Your task to perform on an android device: make emails show in primary in the gmail app Image 0: 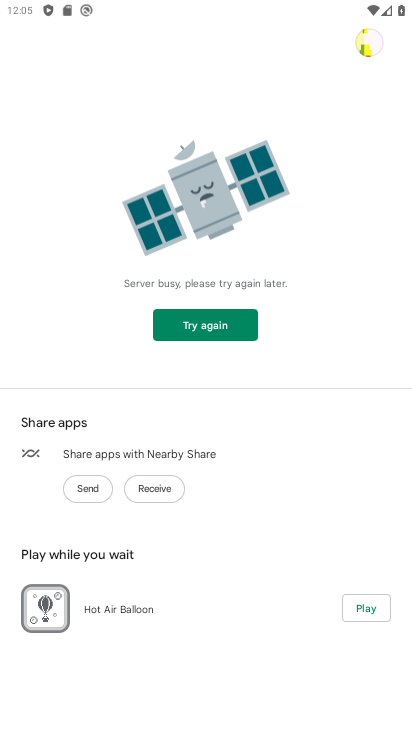
Step 0: press home button
Your task to perform on an android device: make emails show in primary in the gmail app Image 1: 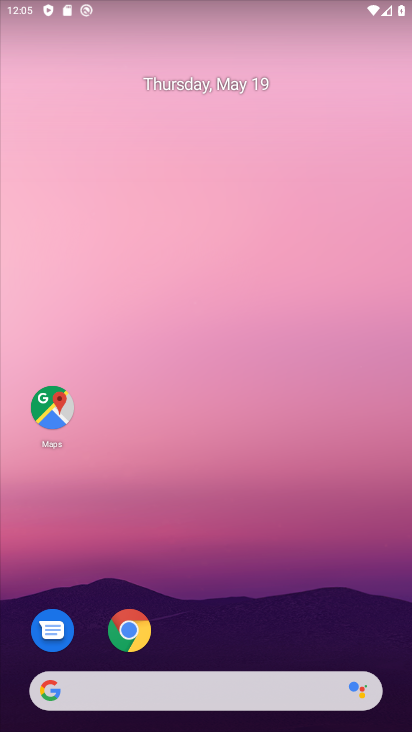
Step 1: drag from (175, 555) to (241, 211)
Your task to perform on an android device: make emails show in primary in the gmail app Image 2: 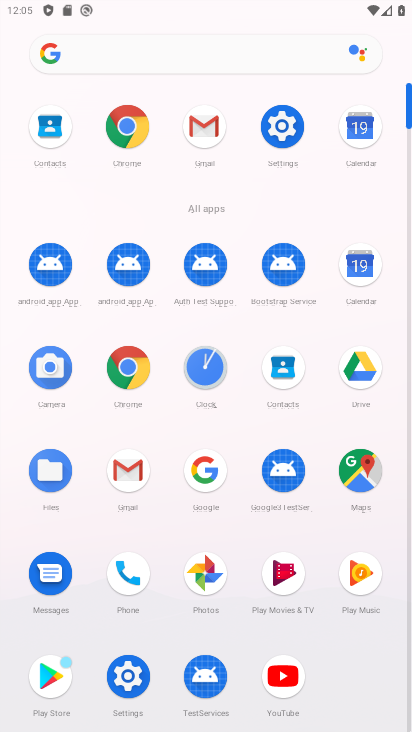
Step 2: click (195, 140)
Your task to perform on an android device: make emails show in primary in the gmail app Image 3: 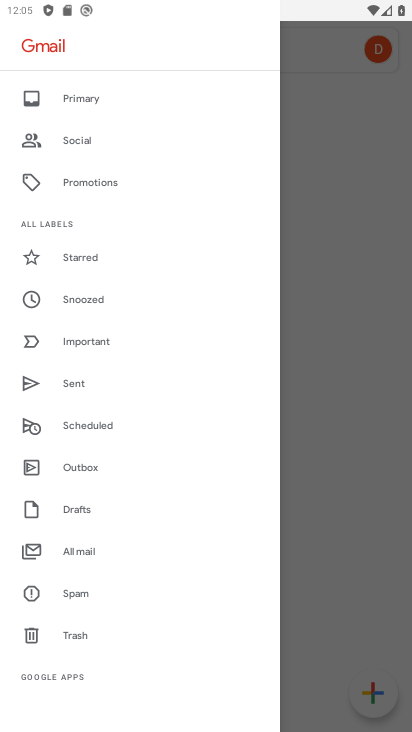
Step 3: drag from (96, 553) to (169, 312)
Your task to perform on an android device: make emails show in primary in the gmail app Image 4: 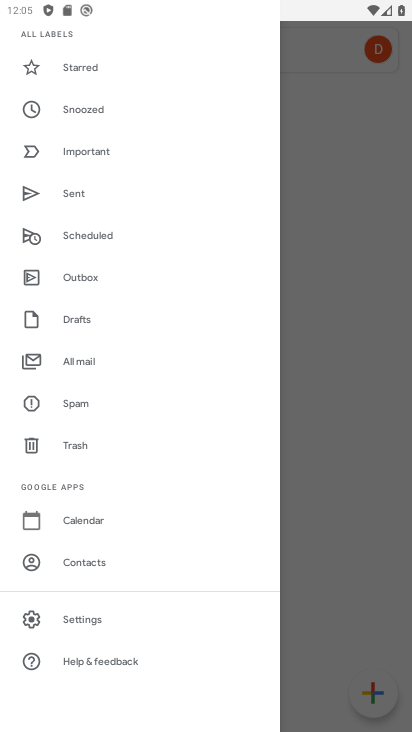
Step 4: click (116, 629)
Your task to perform on an android device: make emails show in primary in the gmail app Image 5: 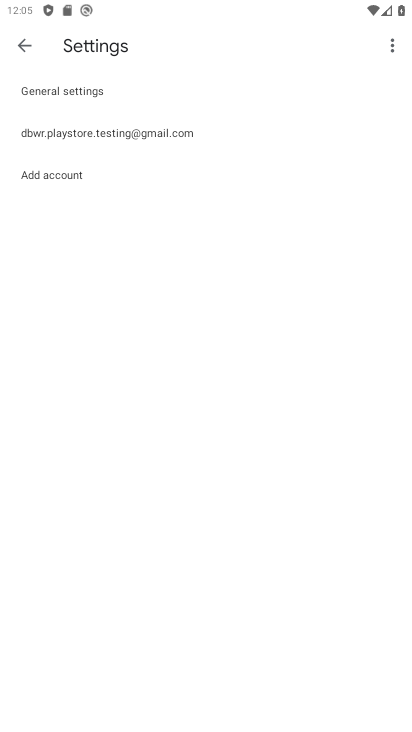
Step 5: click (68, 130)
Your task to perform on an android device: make emails show in primary in the gmail app Image 6: 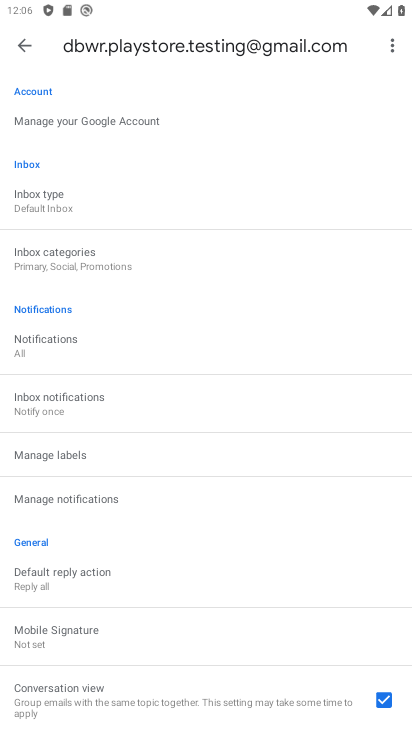
Step 6: click (60, 205)
Your task to perform on an android device: make emails show in primary in the gmail app Image 7: 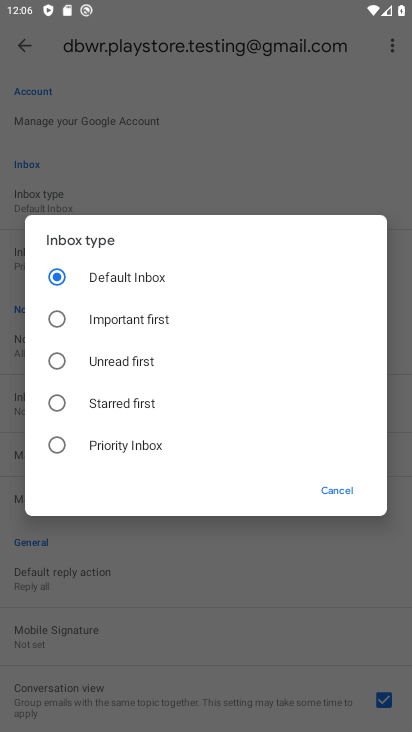
Step 7: click (348, 478)
Your task to perform on an android device: make emails show in primary in the gmail app Image 8: 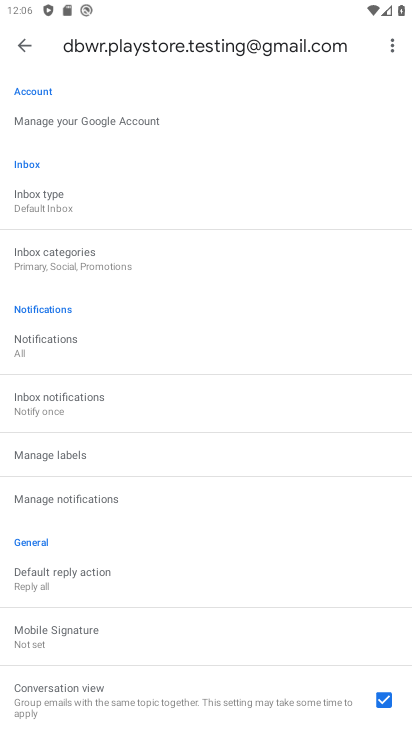
Step 8: click (34, 52)
Your task to perform on an android device: make emails show in primary in the gmail app Image 9: 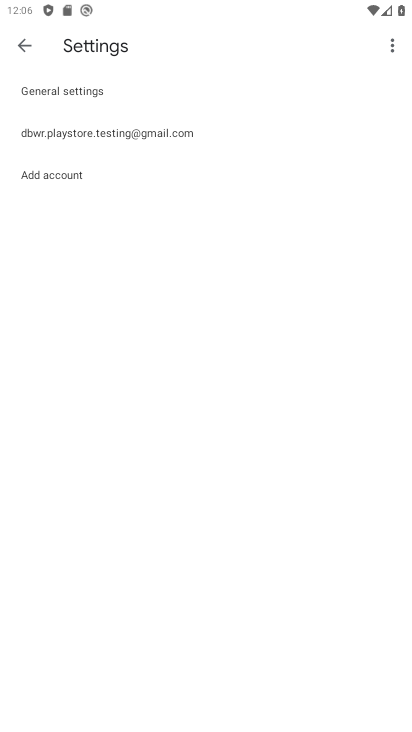
Step 9: click (28, 52)
Your task to perform on an android device: make emails show in primary in the gmail app Image 10: 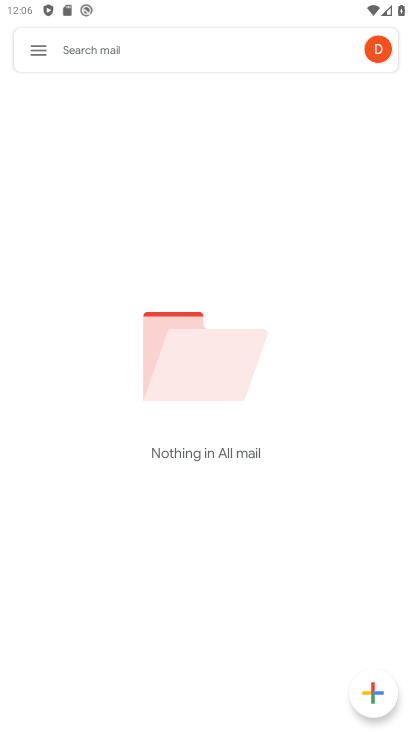
Step 10: click (28, 53)
Your task to perform on an android device: make emails show in primary in the gmail app Image 11: 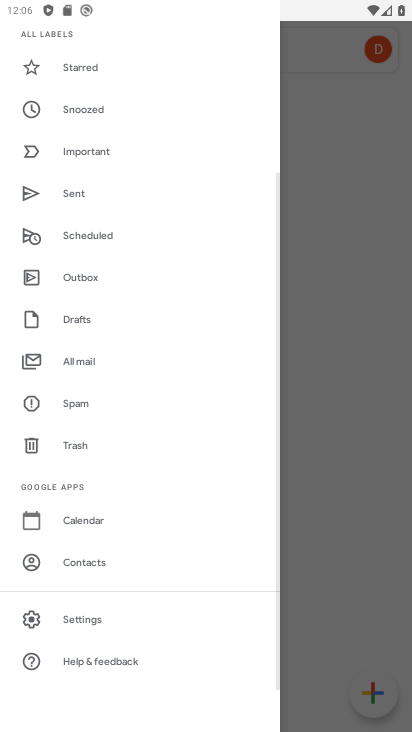
Step 11: drag from (95, 119) to (132, 570)
Your task to perform on an android device: make emails show in primary in the gmail app Image 12: 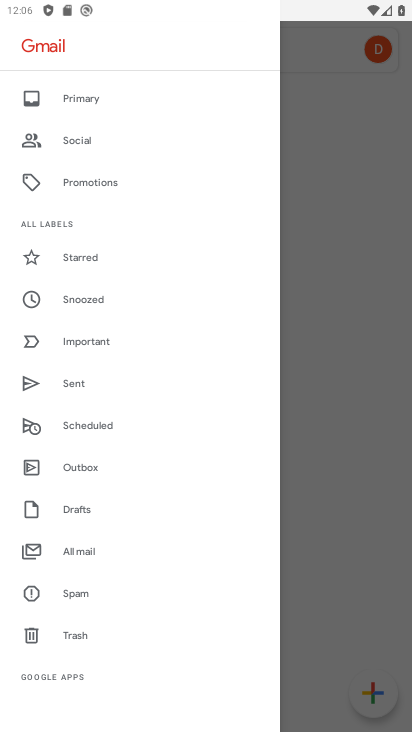
Step 12: click (85, 115)
Your task to perform on an android device: make emails show in primary in the gmail app Image 13: 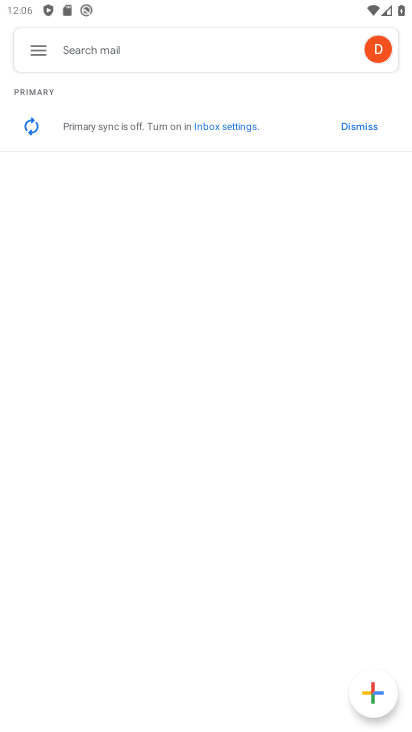
Step 13: task complete